Your task to perform on an android device: change notifications settings Image 0: 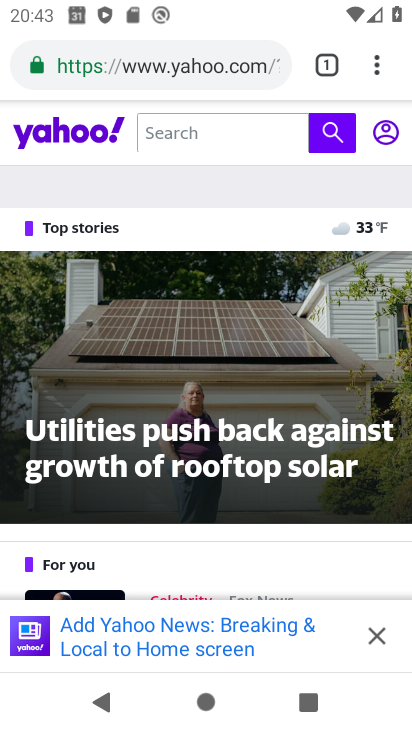
Step 0: task complete